Your task to perform on an android device: install app "Gmail" Image 0: 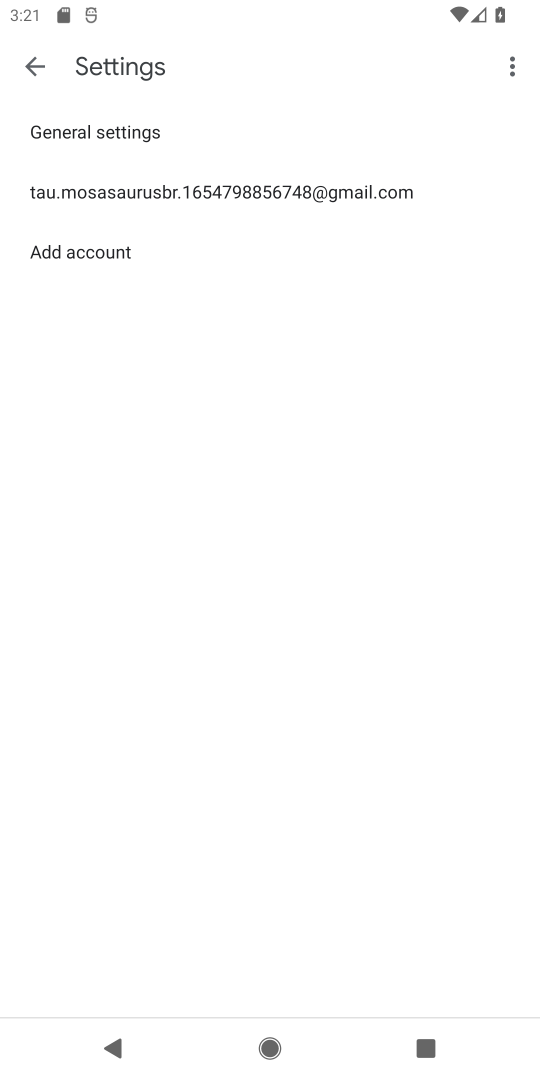
Step 0: press home button
Your task to perform on an android device: install app "Gmail" Image 1: 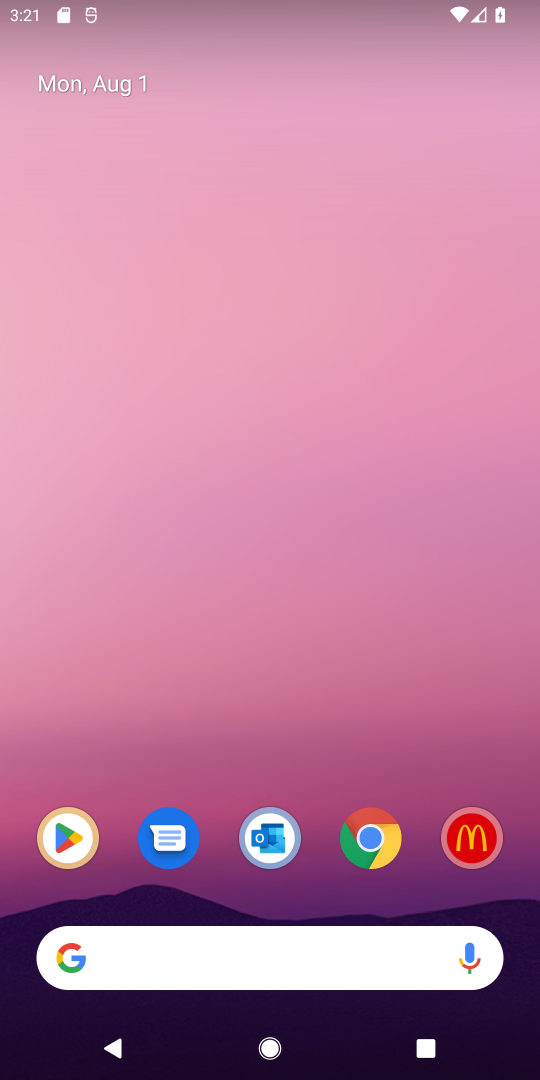
Step 1: click (81, 854)
Your task to perform on an android device: install app "Gmail" Image 2: 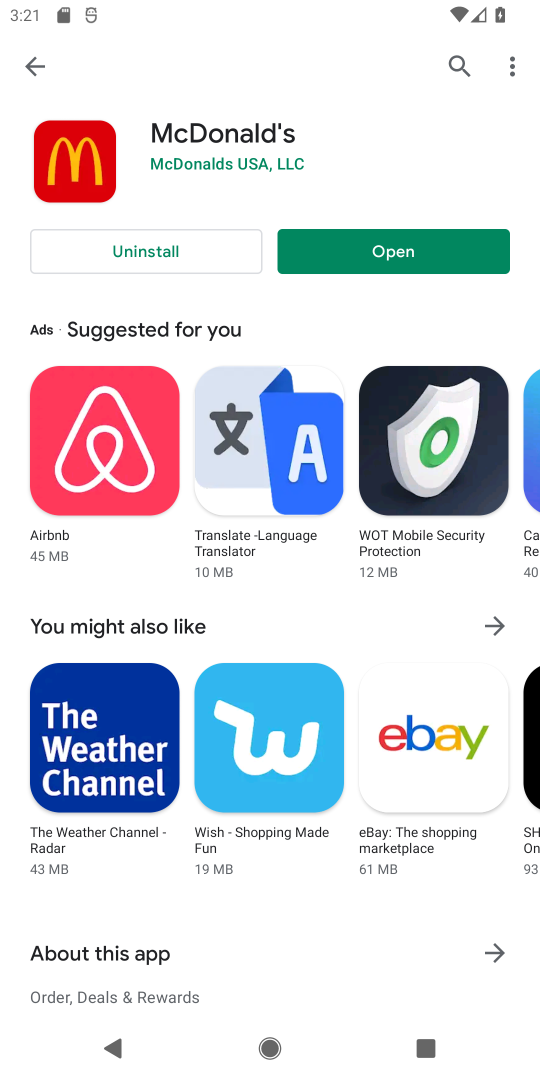
Step 2: click (452, 54)
Your task to perform on an android device: install app "Gmail" Image 3: 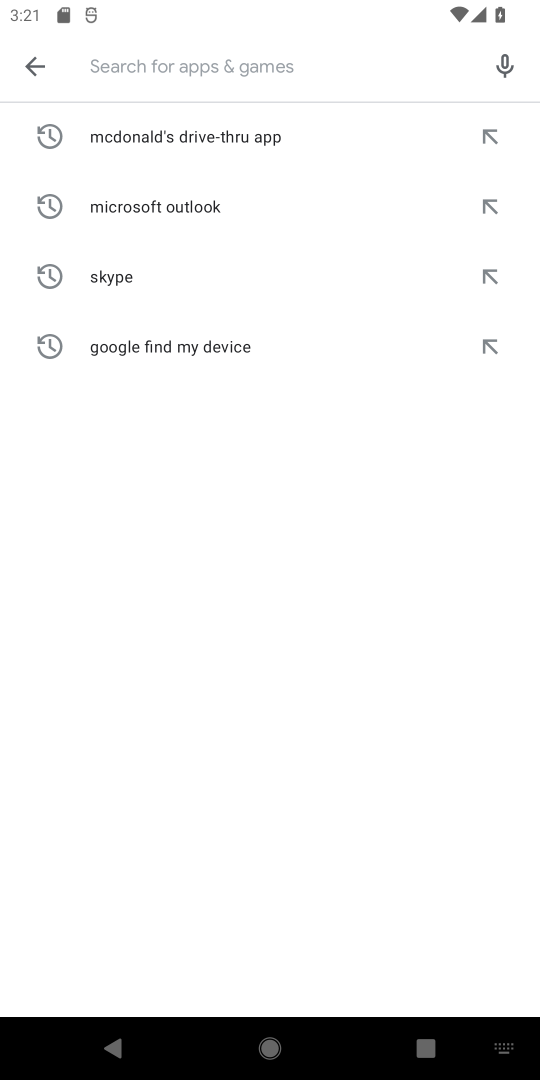
Step 3: type "Gmail"
Your task to perform on an android device: install app "Gmail" Image 4: 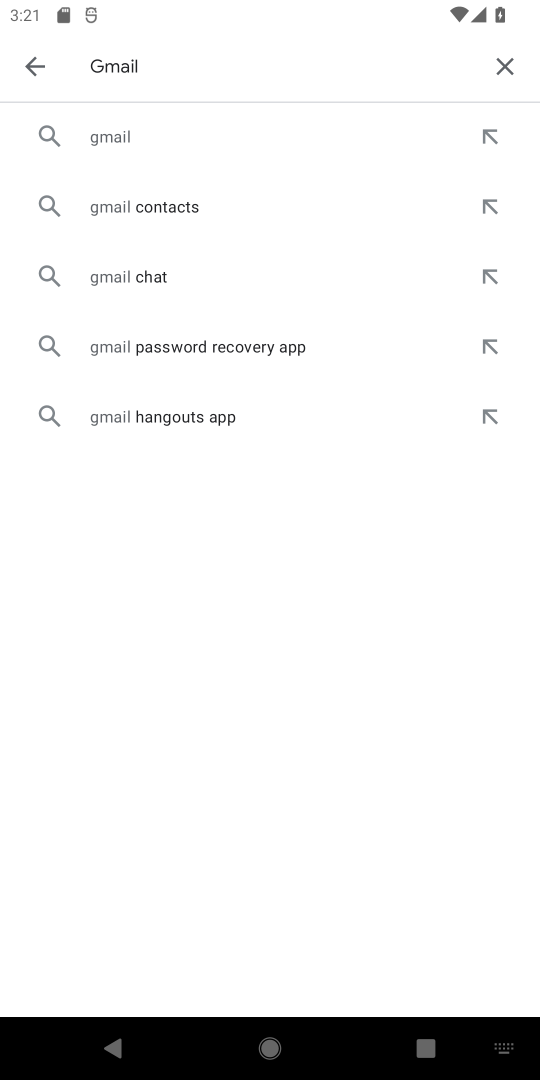
Step 4: click (157, 145)
Your task to perform on an android device: install app "Gmail" Image 5: 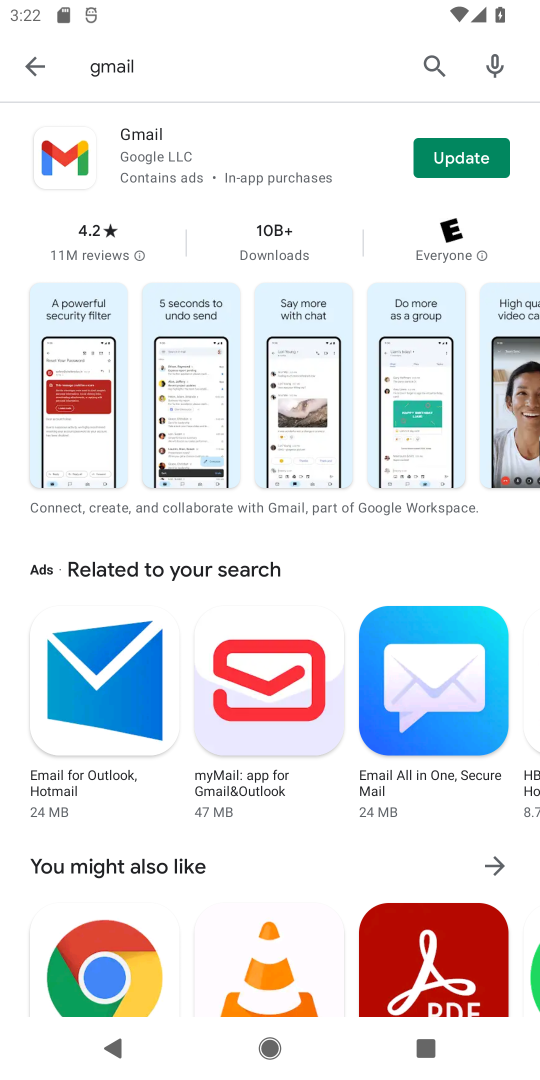
Step 5: task complete